Your task to perform on an android device: empty trash in google photos Image 0: 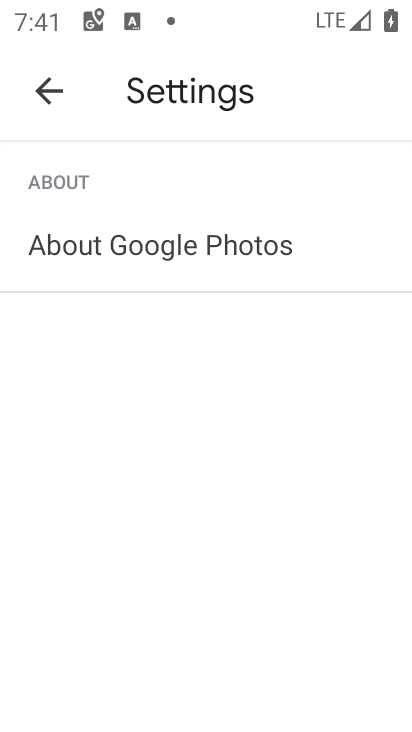
Step 0: click (56, 85)
Your task to perform on an android device: empty trash in google photos Image 1: 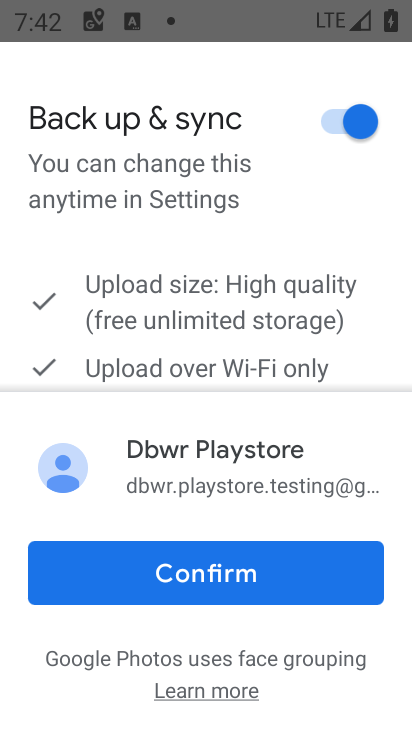
Step 1: click (70, 101)
Your task to perform on an android device: empty trash in google photos Image 2: 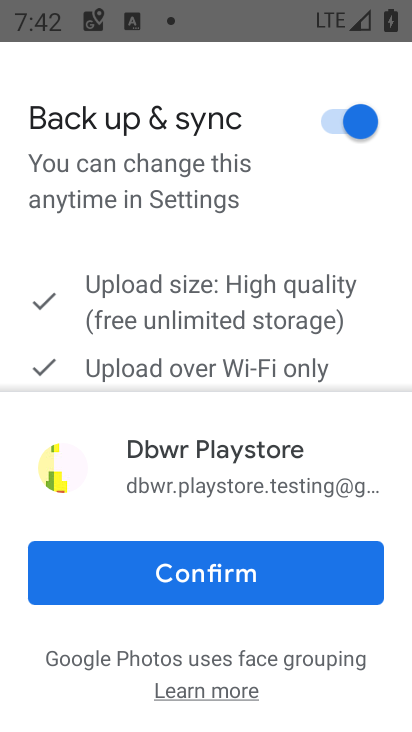
Step 2: click (144, 563)
Your task to perform on an android device: empty trash in google photos Image 3: 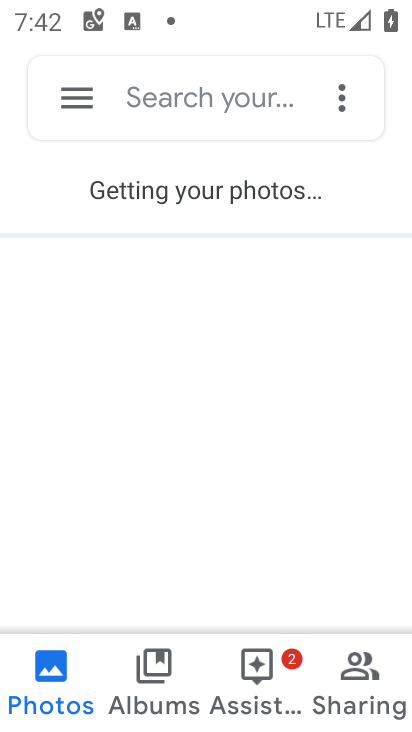
Step 3: click (76, 94)
Your task to perform on an android device: empty trash in google photos Image 4: 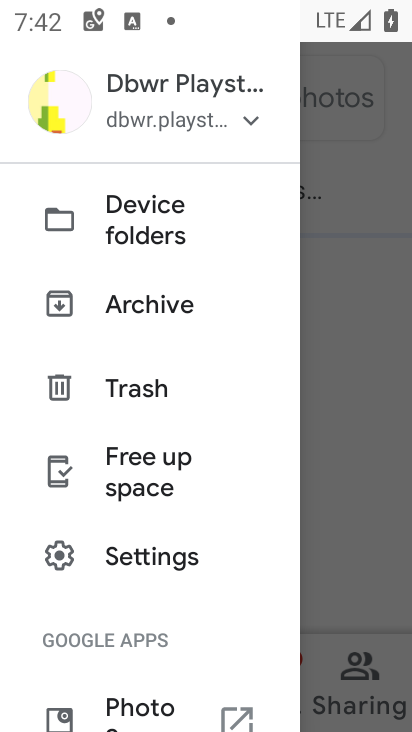
Step 4: click (118, 385)
Your task to perform on an android device: empty trash in google photos Image 5: 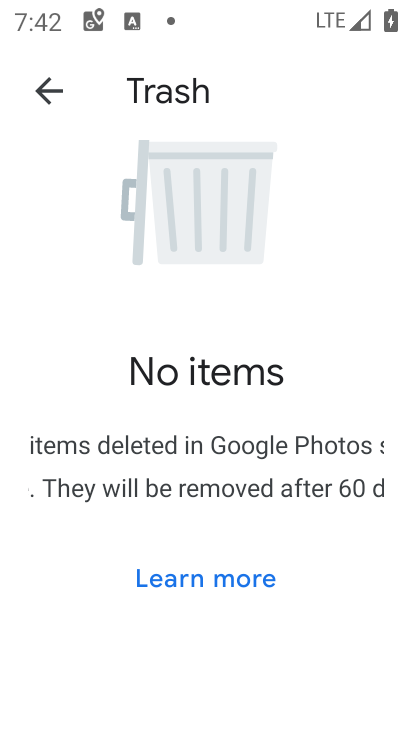
Step 5: task complete